Your task to perform on an android device: Search for good Greek restaurants Image 0: 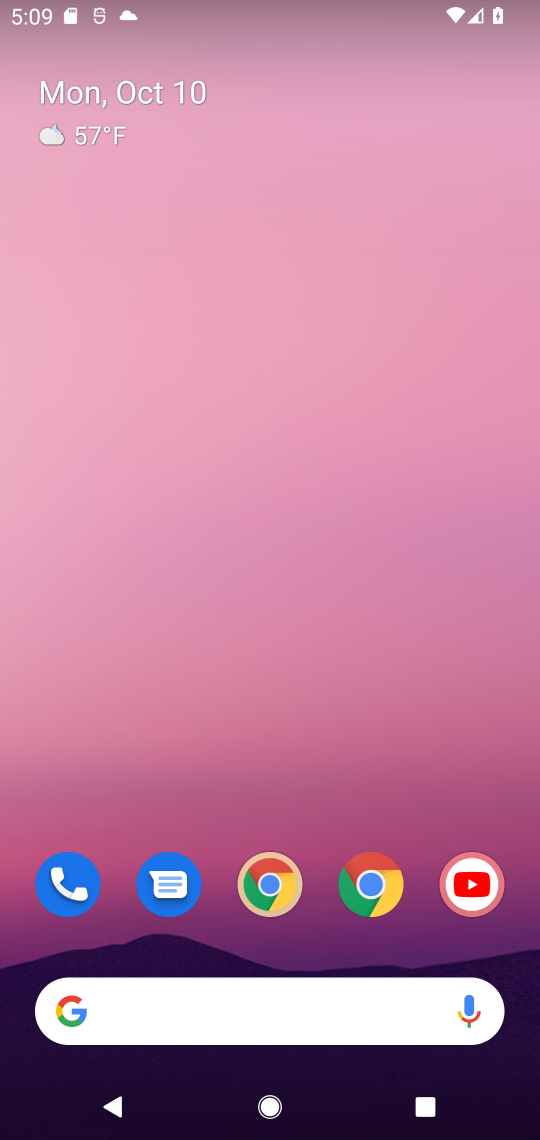
Step 0: click (354, 888)
Your task to perform on an android device: Search for good Greek restaurants Image 1: 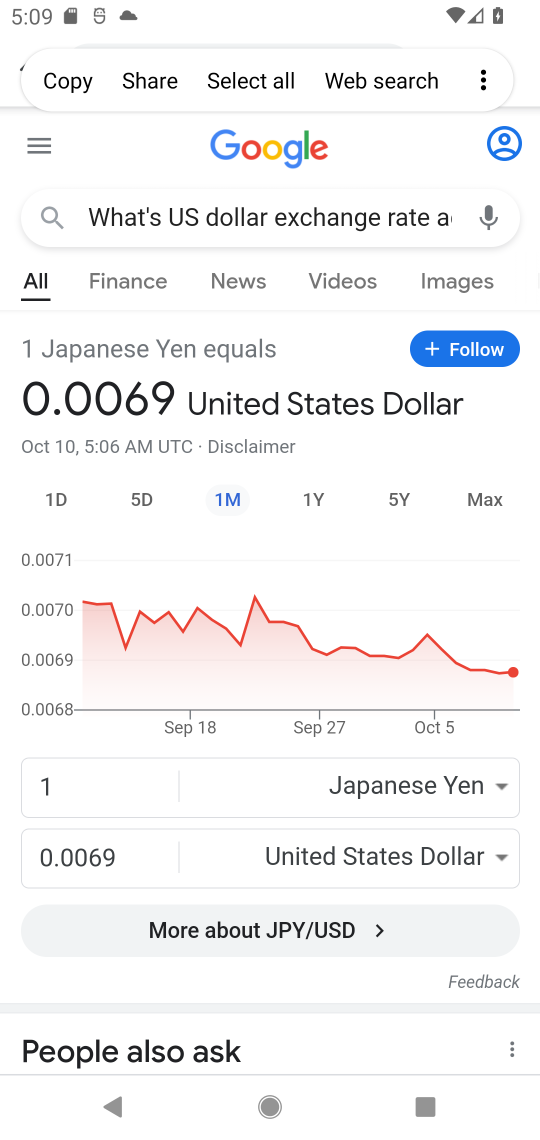
Step 1: click (260, 219)
Your task to perform on an android device: Search for good Greek restaurants Image 2: 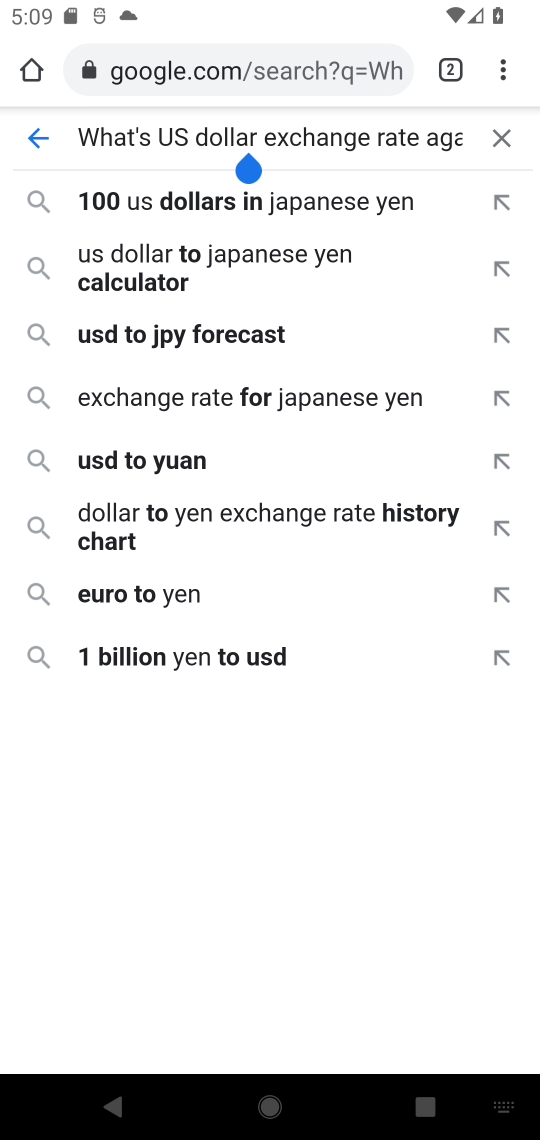
Step 2: click (502, 142)
Your task to perform on an android device: Search for good Greek restaurants Image 3: 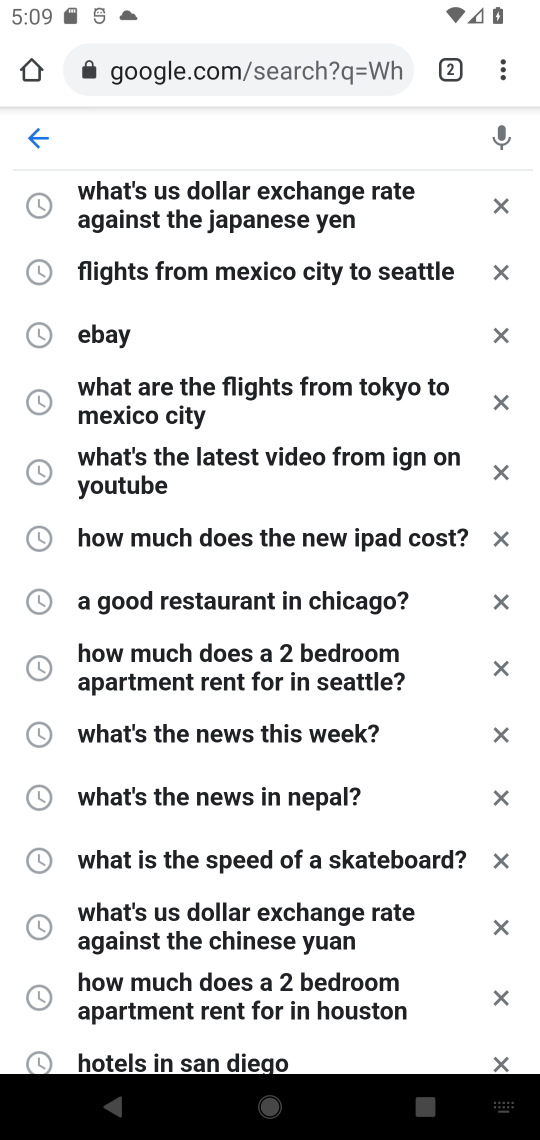
Step 3: type "good greek restaurants"
Your task to perform on an android device: Search for good Greek restaurants Image 4: 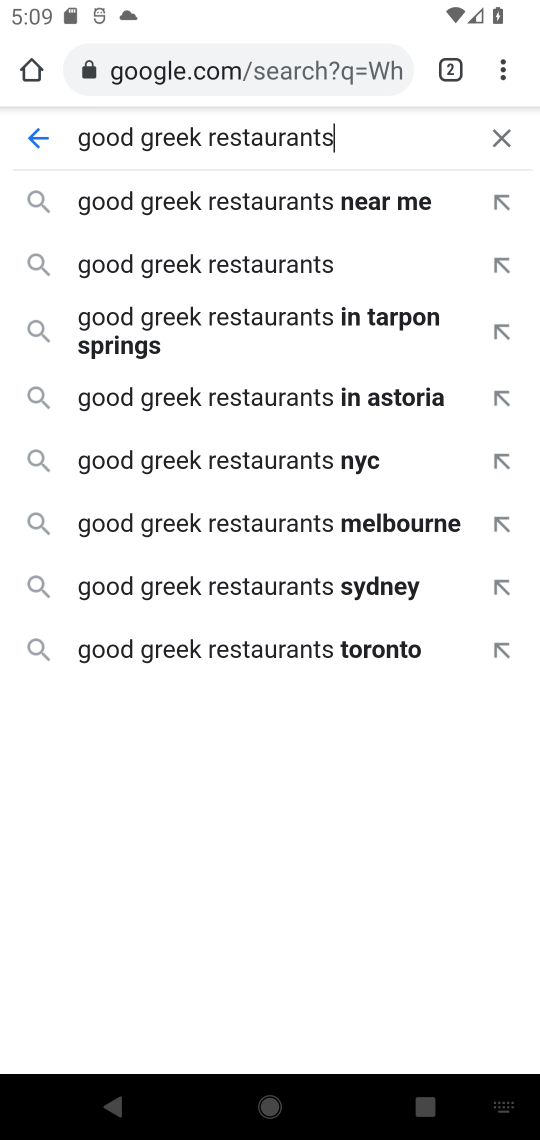
Step 4: click (306, 201)
Your task to perform on an android device: Search for good Greek restaurants Image 5: 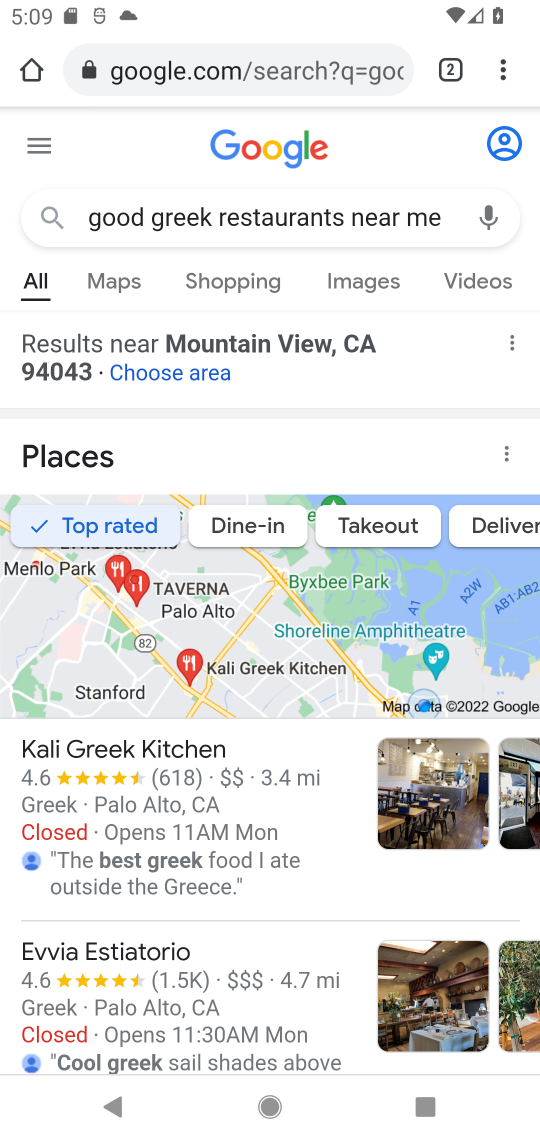
Step 5: task complete